Your task to perform on an android device: turn off wifi Image 0: 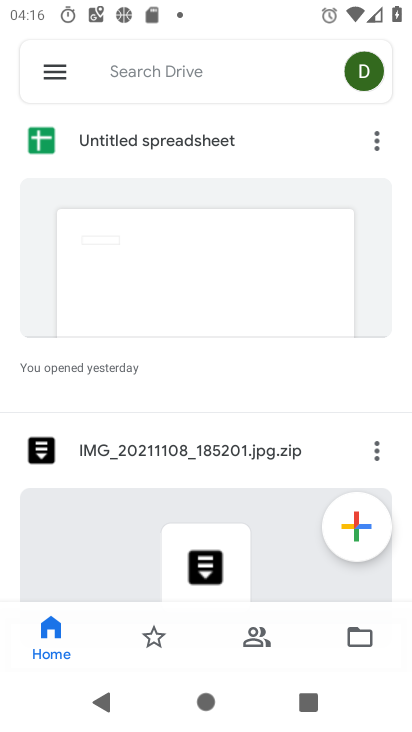
Step 0: press back button
Your task to perform on an android device: turn off wifi Image 1: 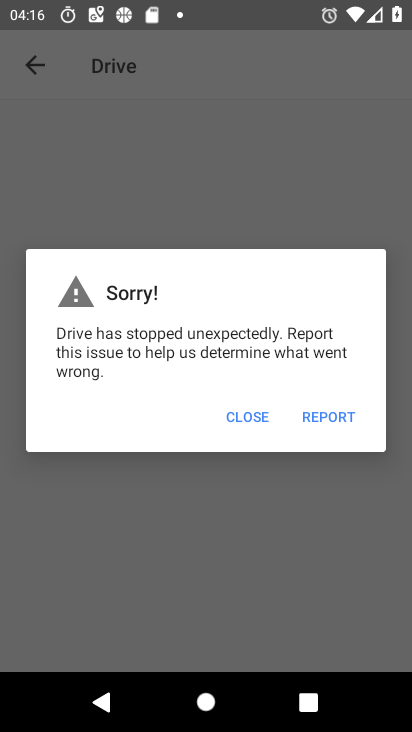
Step 1: press home button
Your task to perform on an android device: turn off wifi Image 2: 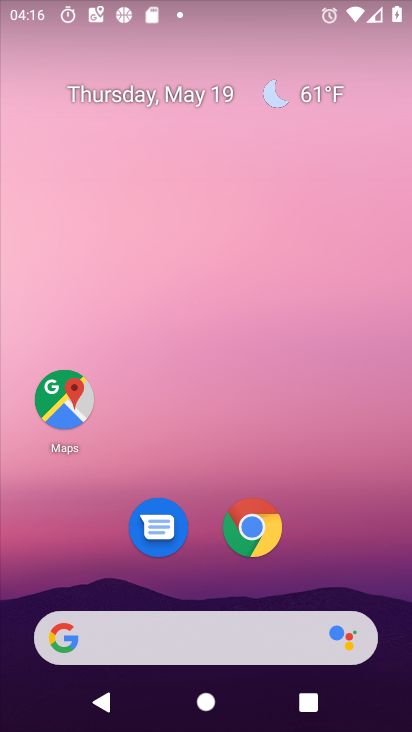
Step 2: drag from (130, 13) to (105, 478)
Your task to perform on an android device: turn off wifi Image 3: 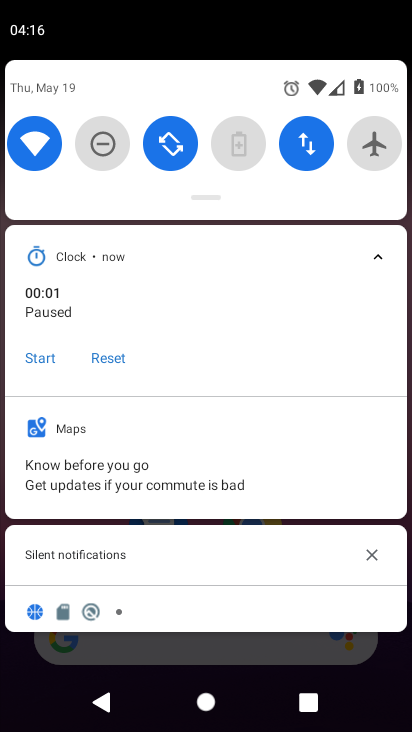
Step 3: click (31, 148)
Your task to perform on an android device: turn off wifi Image 4: 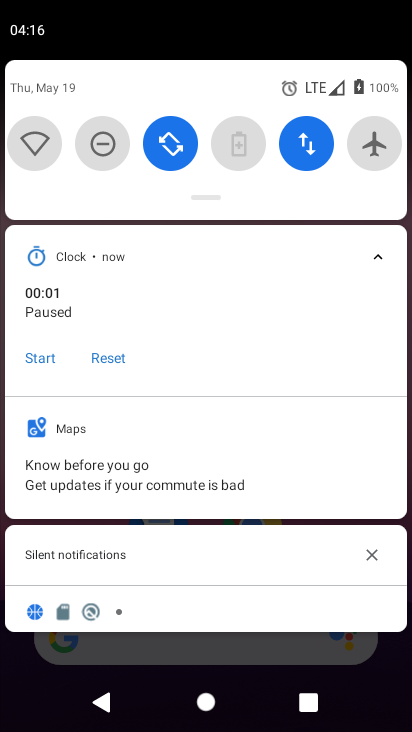
Step 4: task complete